Your task to perform on an android device: toggle translation in the chrome app Image 0: 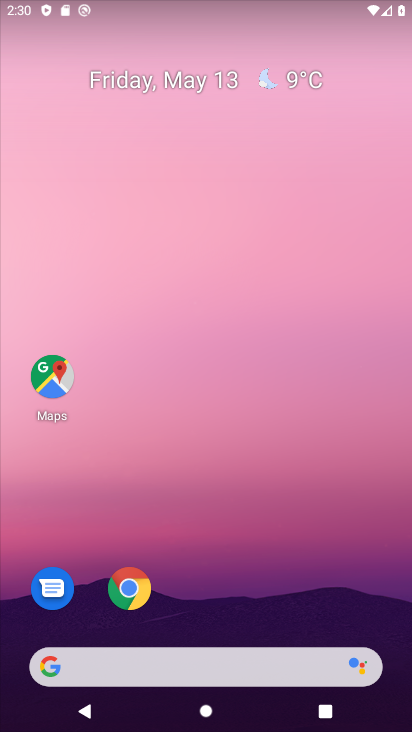
Step 0: click (117, 602)
Your task to perform on an android device: toggle translation in the chrome app Image 1: 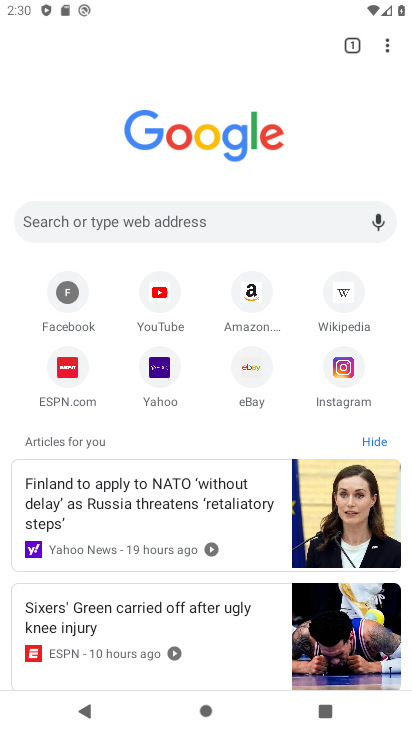
Step 1: drag from (391, 45) to (226, 437)
Your task to perform on an android device: toggle translation in the chrome app Image 2: 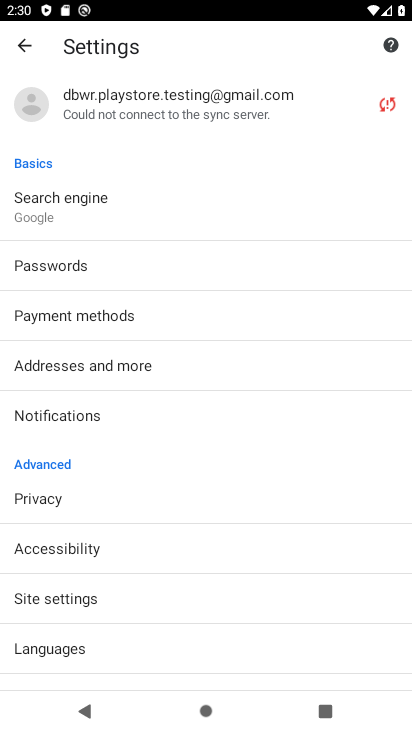
Step 2: click (98, 655)
Your task to perform on an android device: toggle translation in the chrome app Image 3: 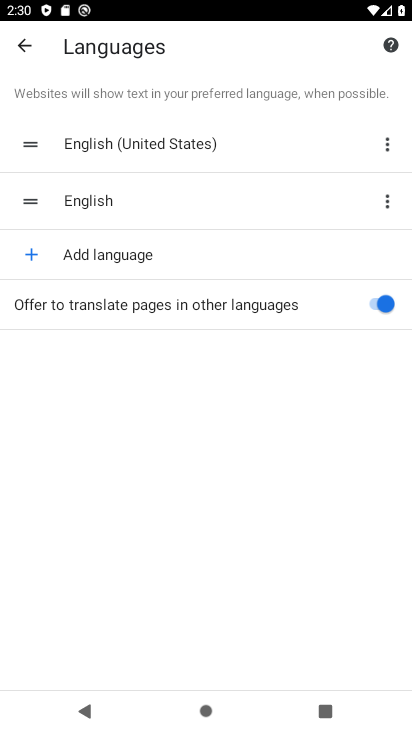
Step 3: click (382, 309)
Your task to perform on an android device: toggle translation in the chrome app Image 4: 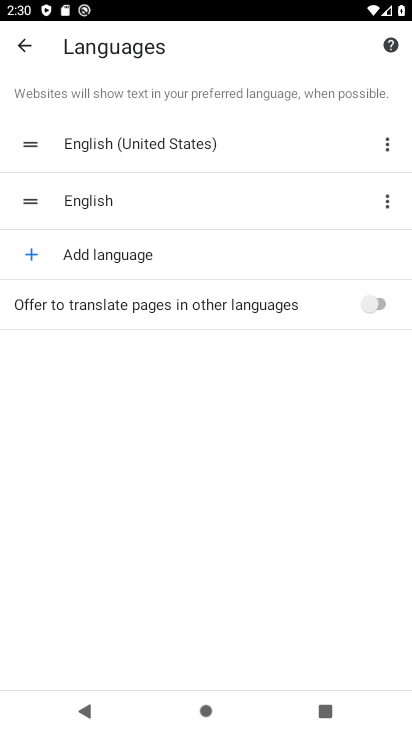
Step 4: task complete